Your task to perform on an android device: stop showing notifications on the lock screen Image 0: 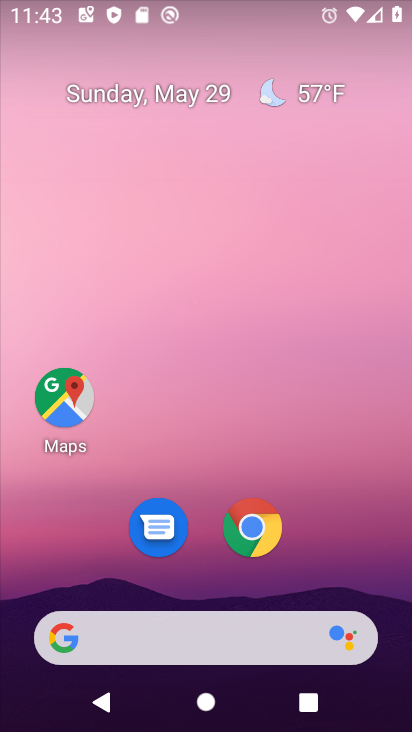
Step 0: drag from (263, 381) to (265, 14)
Your task to perform on an android device: stop showing notifications on the lock screen Image 1: 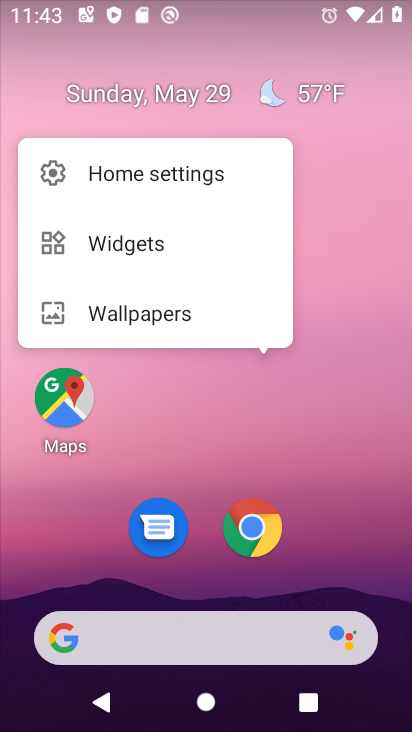
Step 1: drag from (199, 584) to (193, 106)
Your task to perform on an android device: stop showing notifications on the lock screen Image 2: 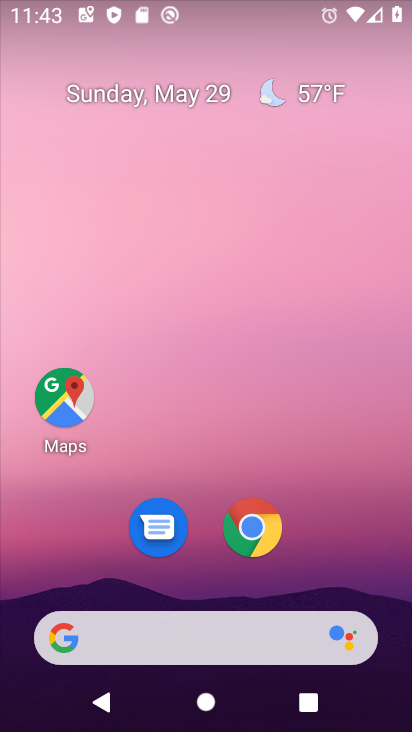
Step 2: drag from (225, 587) to (244, 118)
Your task to perform on an android device: stop showing notifications on the lock screen Image 3: 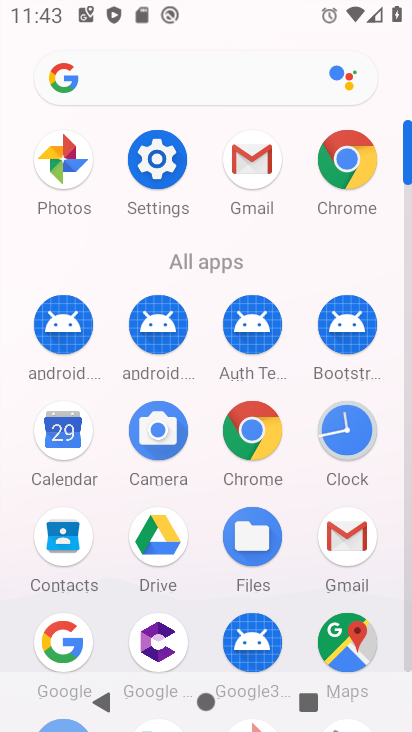
Step 3: click (160, 159)
Your task to perform on an android device: stop showing notifications on the lock screen Image 4: 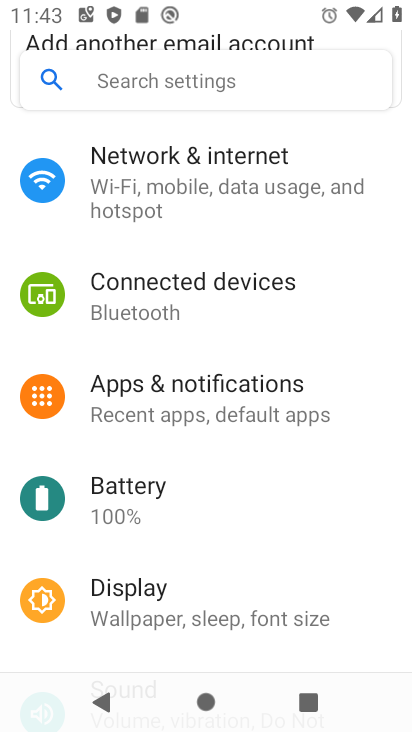
Step 4: click (123, 390)
Your task to perform on an android device: stop showing notifications on the lock screen Image 5: 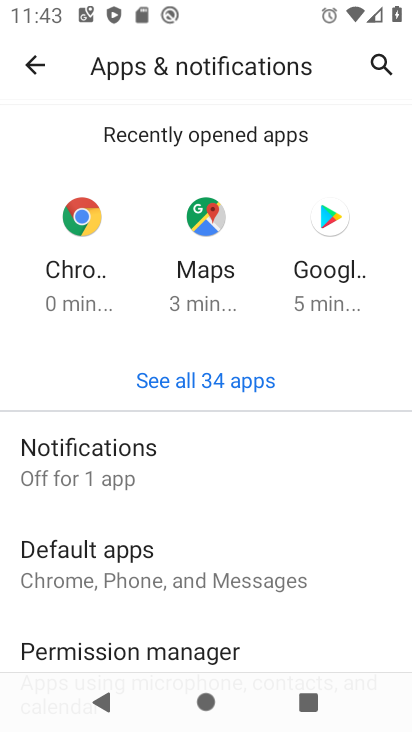
Step 5: click (126, 464)
Your task to perform on an android device: stop showing notifications on the lock screen Image 6: 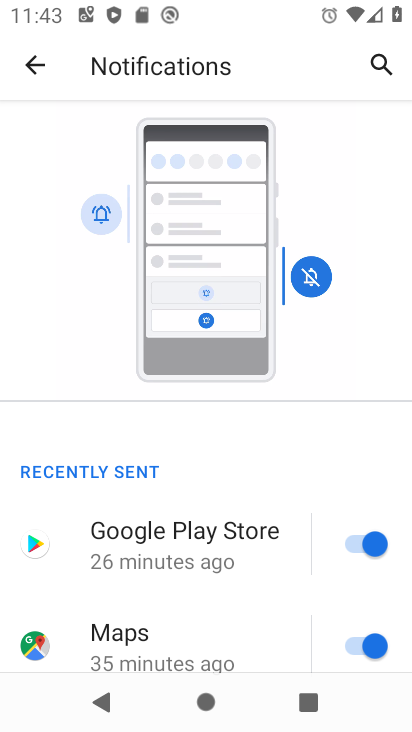
Step 6: drag from (139, 606) to (241, 93)
Your task to perform on an android device: stop showing notifications on the lock screen Image 7: 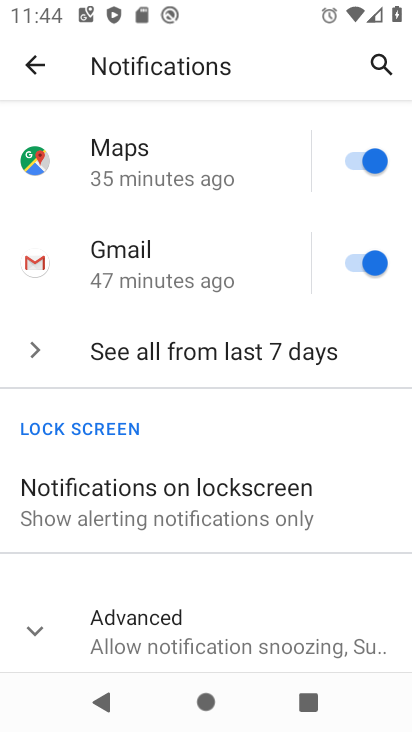
Step 7: click (249, 494)
Your task to perform on an android device: stop showing notifications on the lock screen Image 8: 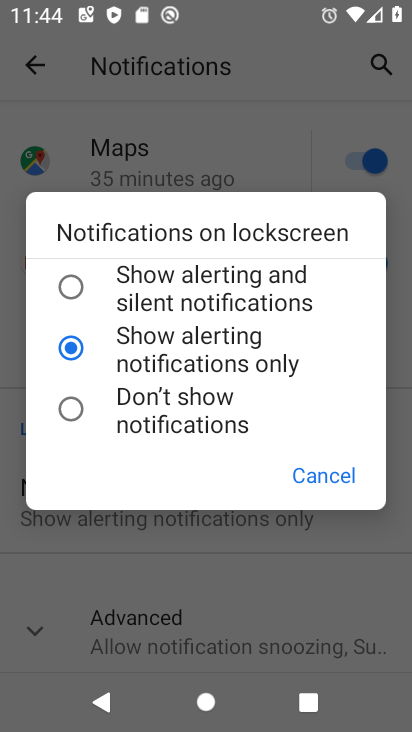
Step 8: click (147, 414)
Your task to perform on an android device: stop showing notifications on the lock screen Image 9: 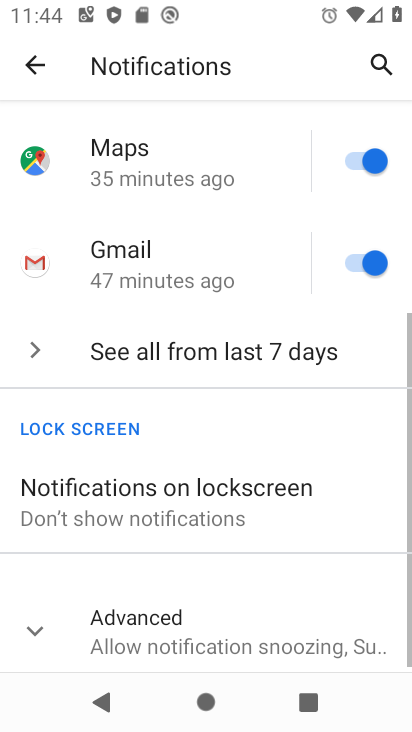
Step 9: task complete